Your task to perform on an android device: What's the latest video from GameSpot eSports? Image 0: 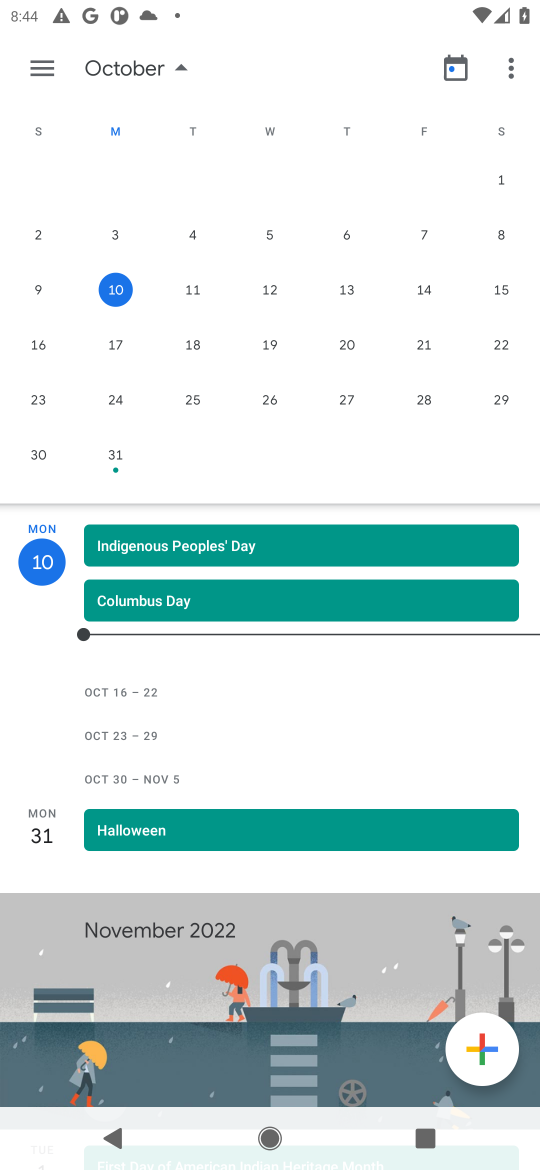
Step 0: press home button
Your task to perform on an android device: What's the latest video from GameSpot eSports? Image 1: 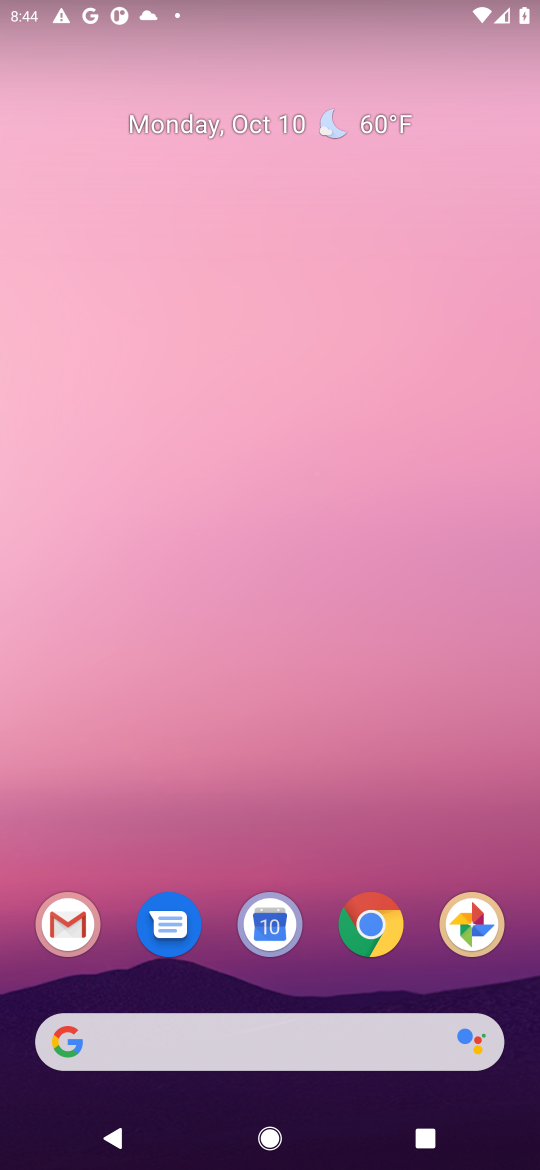
Step 1: drag from (399, 1000) to (380, 42)
Your task to perform on an android device: What's the latest video from GameSpot eSports? Image 2: 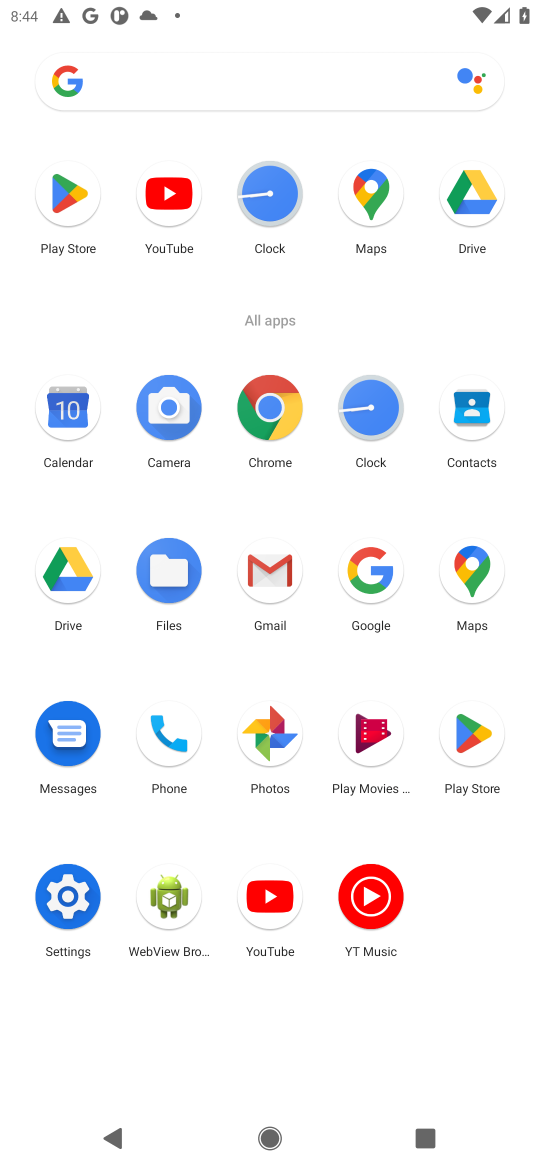
Step 2: click (166, 237)
Your task to perform on an android device: What's the latest video from GameSpot eSports? Image 3: 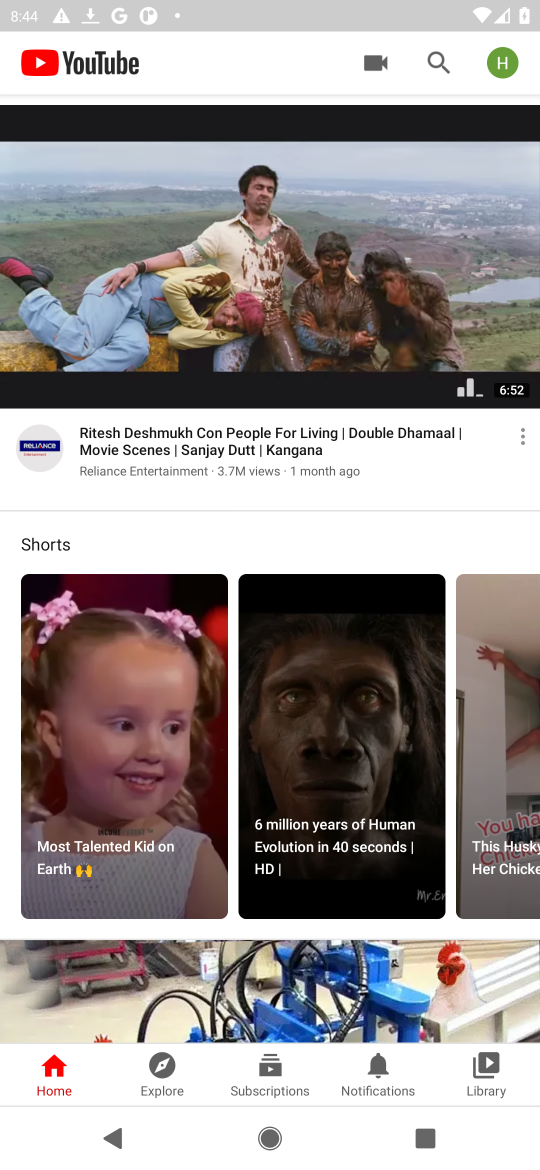
Step 3: click (438, 69)
Your task to perform on an android device: What's the latest video from GameSpot eSports? Image 4: 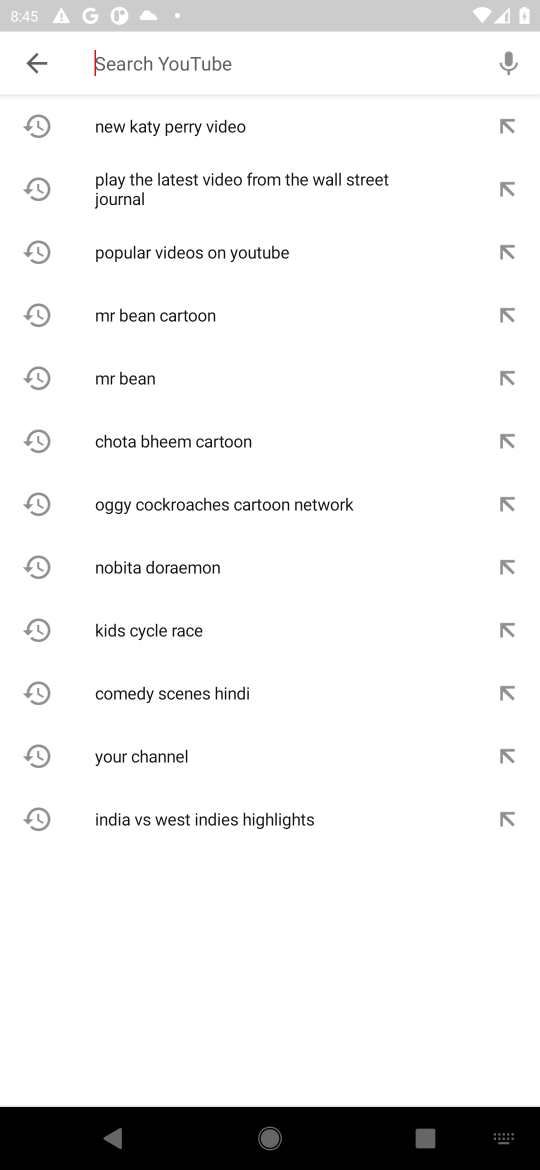
Step 4: type "GameSpot eSports"
Your task to perform on an android device: What's the latest video from GameSpot eSports? Image 5: 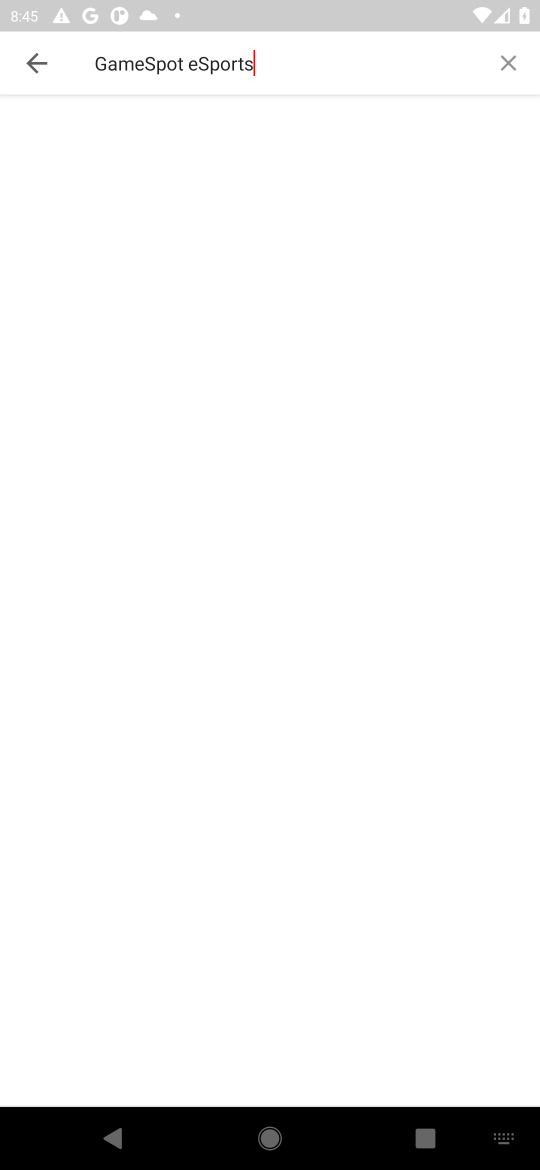
Step 5: task complete